Your task to perform on an android device: turn smart compose on in the gmail app Image 0: 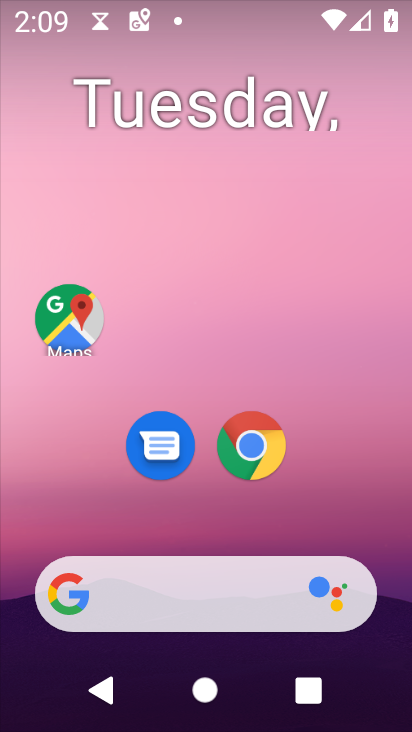
Step 0: drag from (310, 571) to (354, 11)
Your task to perform on an android device: turn smart compose on in the gmail app Image 1: 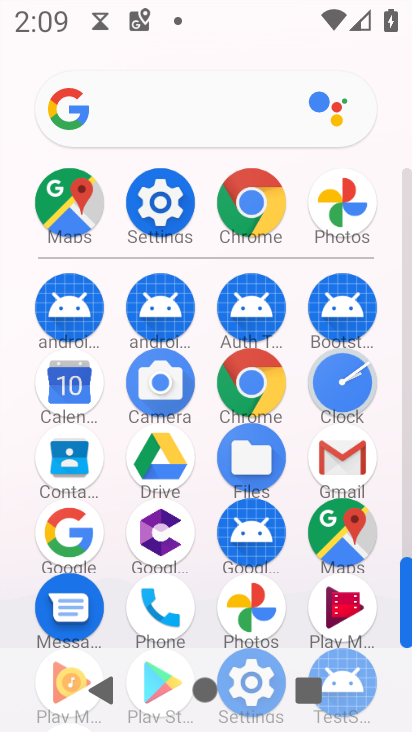
Step 1: click (347, 466)
Your task to perform on an android device: turn smart compose on in the gmail app Image 2: 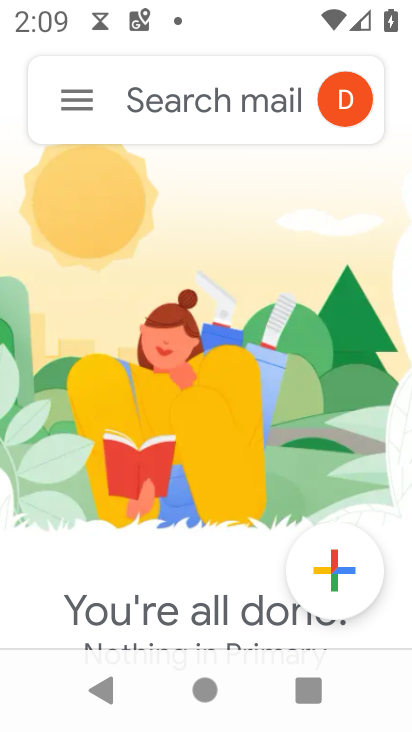
Step 2: press back button
Your task to perform on an android device: turn smart compose on in the gmail app Image 3: 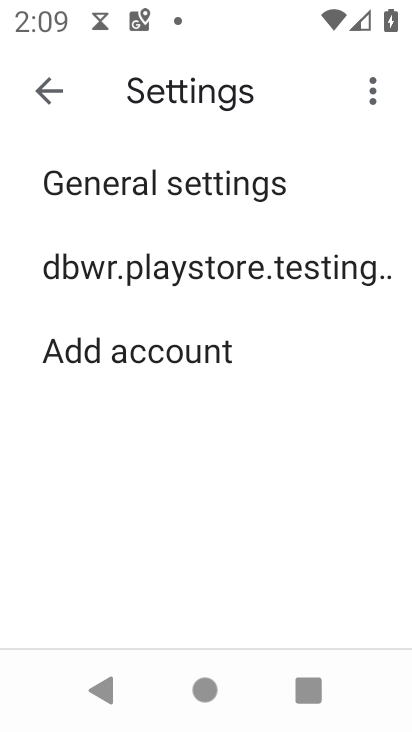
Step 3: click (131, 269)
Your task to perform on an android device: turn smart compose on in the gmail app Image 4: 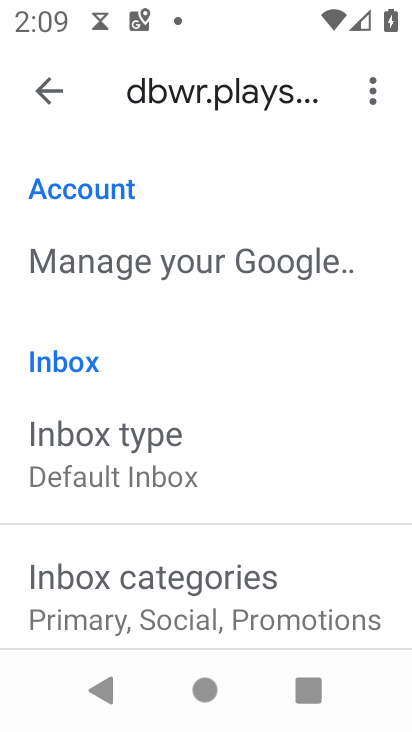
Step 4: press home button
Your task to perform on an android device: turn smart compose on in the gmail app Image 5: 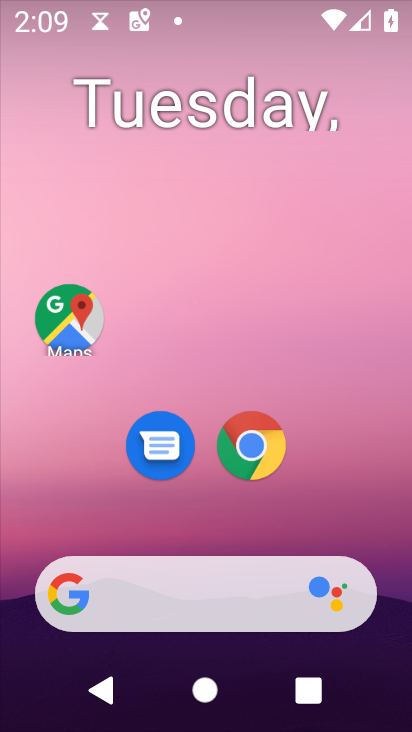
Step 5: drag from (237, 608) to (282, 29)
Your task to perform on an android device: turn smart compose on in the gmail app Image 6: 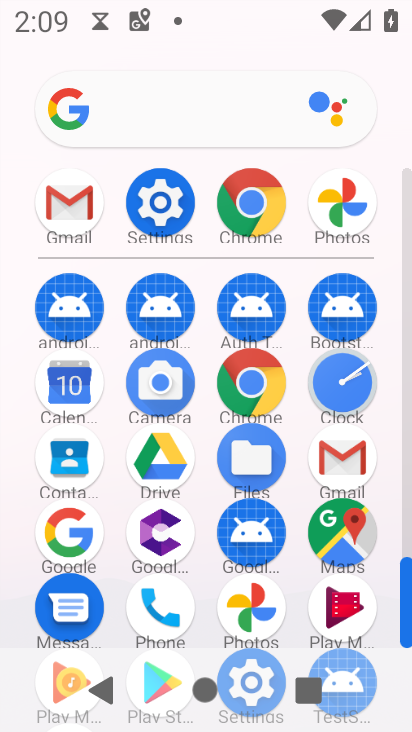
Step 6: click (328, 457)
Your task to perform on an android device: turn smart compose on in the gmail app Image 7: 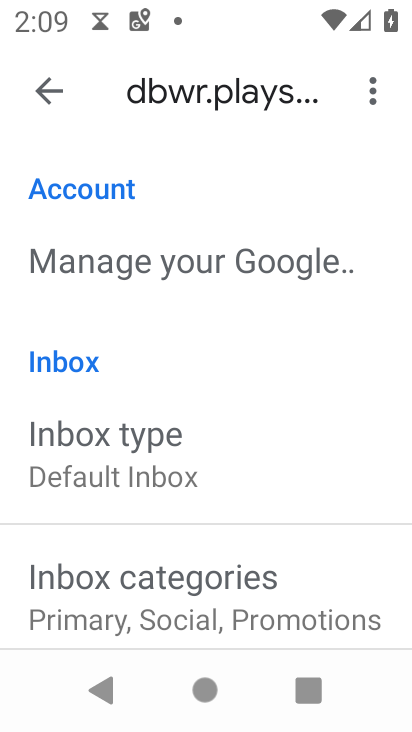
Step 7: drag from (262, 600) to (293, 283)
Your task to perform on an android device: turn smart compose on in the gmail app Image 8: 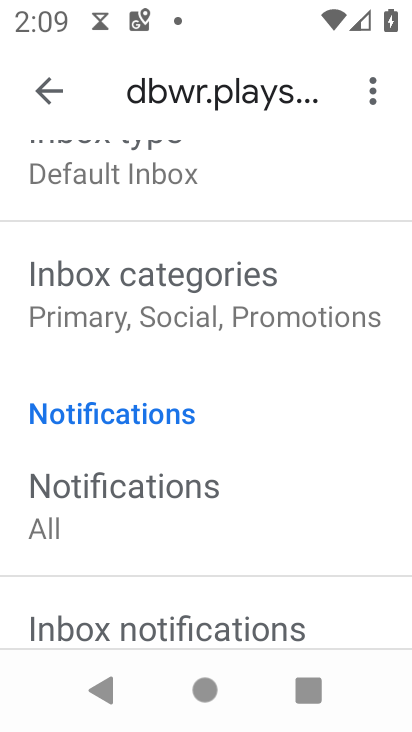
Step 8: drag from (283, 610) to (311, 229)
Your task to perform on an android device: turn smart compose on in the gmail app Image 9: 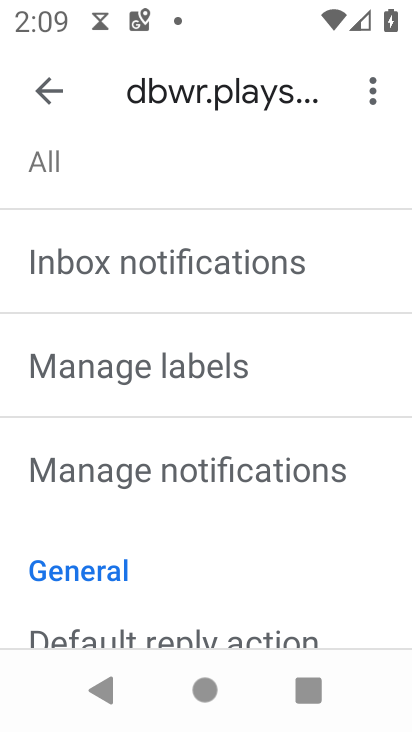
Step 9: drag from (312, 615) to (325, 276)
Your task to perform on an android device: turn smart compose on in the gmail app Image 10: 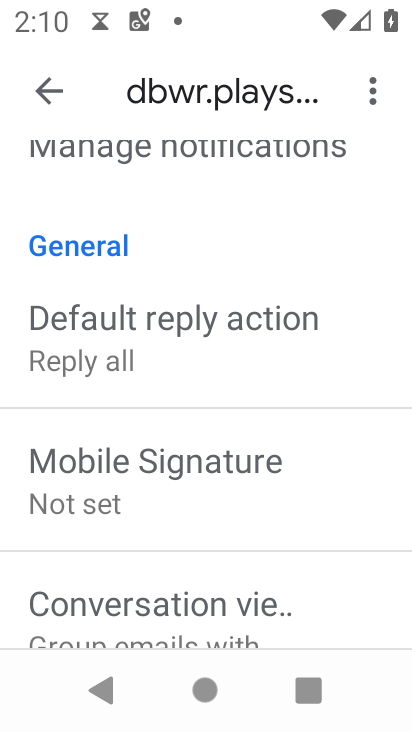
Step 10: drag from (276, 649) to (326, 345)
Your task to perform on an android device: turn smart compose on in the gmail app Image 11: 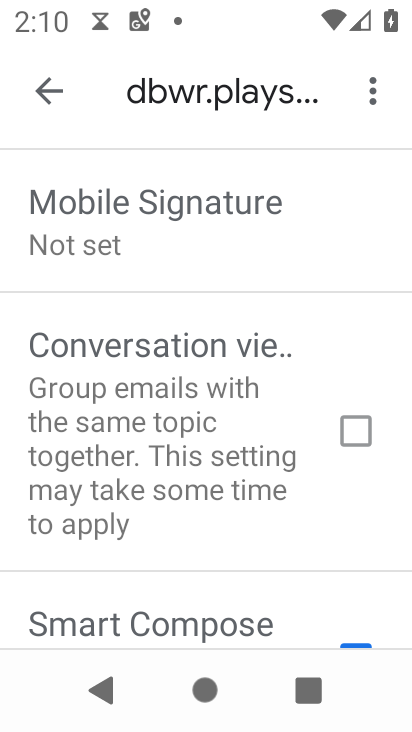
Step 11: click (244, 619)
Your task to perform on an android device: turn smart compose on in the gmail app Image 12: 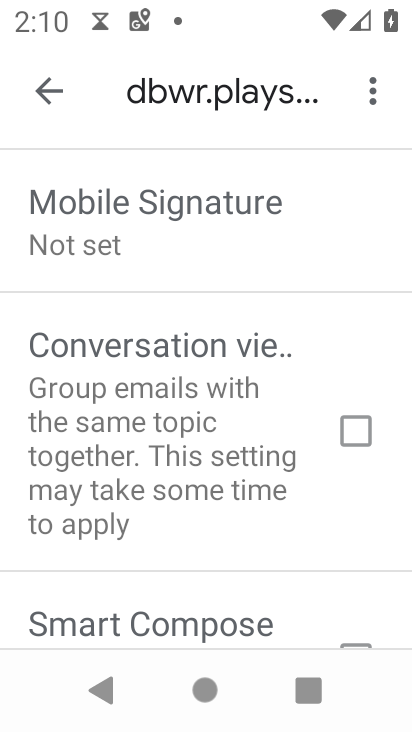
Step 12: task complete